Your task to perform on an android device: turn on javascript in the chrome app Image 0: 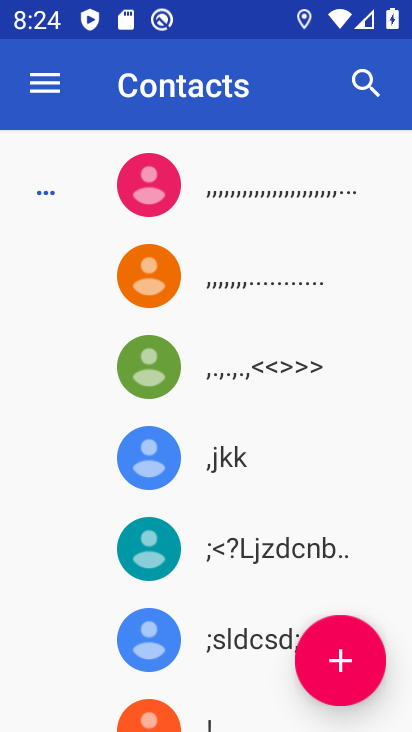
Step 0: press home button
Your task to perform on an android device: turn on javascript in the chrome app Image 1: 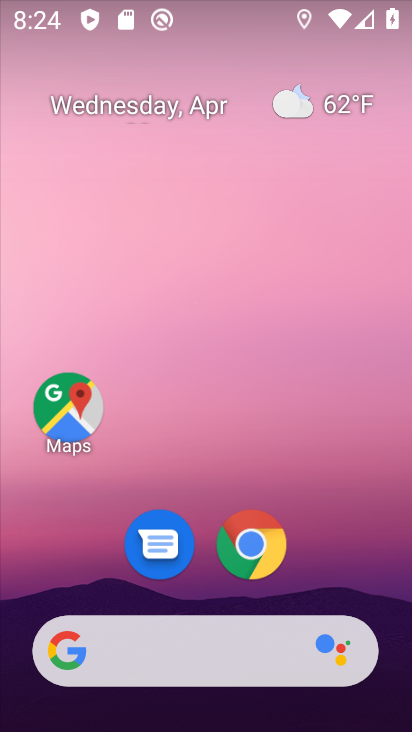
Step 1: click (254, 535)
Your task to perform on an android device: turn on javascript in the chrome app Image 2: 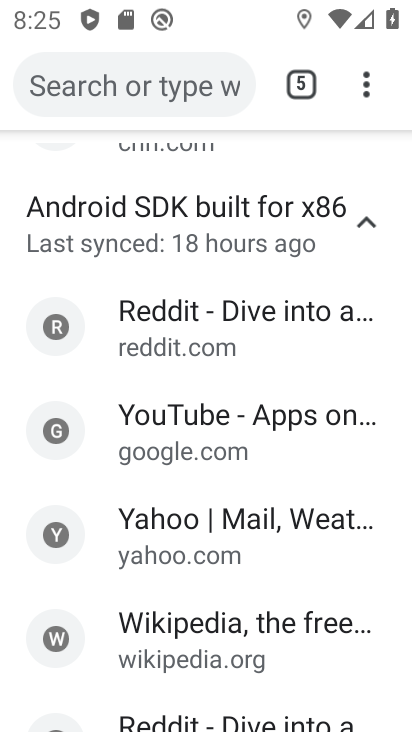
Step 2: drag from (364, 88) to (176, 586)
Your task to perform on an android device: turn on javascript in the chrome app Image 3: 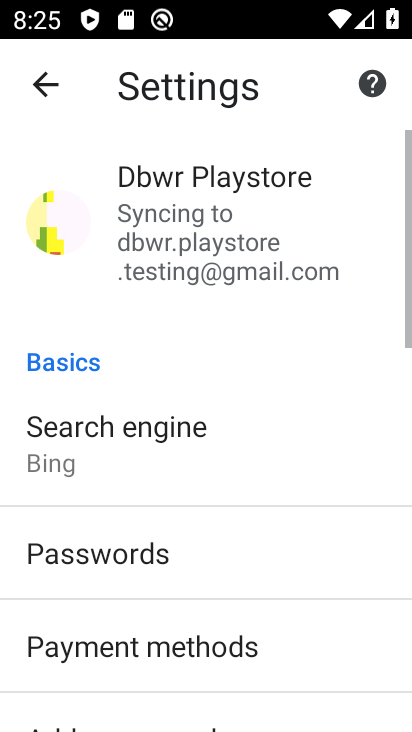
Step 3: drag from (204, 568) to (174, 147)
Your task to perform on an android device: turn on javascript in the chrome app Image 4: 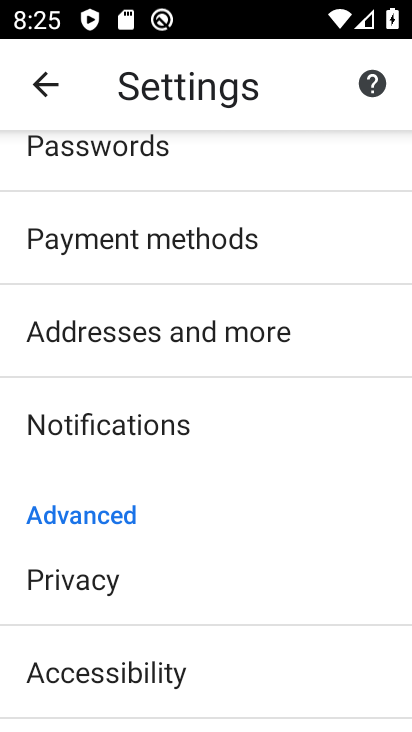
Step 4: drag from (289, 634) to (295, 376)
Your task to perform on an android device: turn on javascript in the chrome app Image 5: 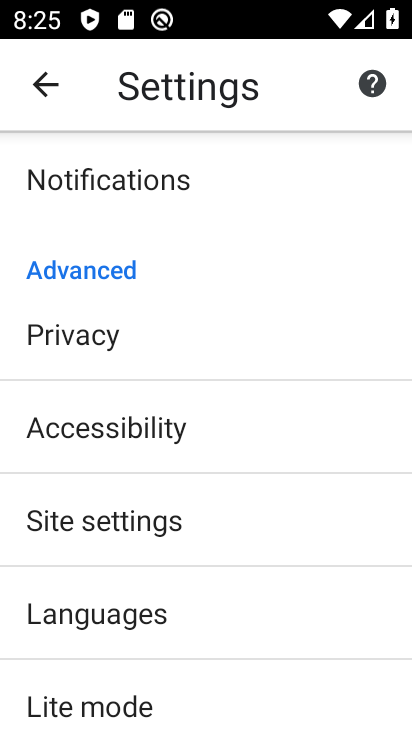
Step 5: click (117, 525)
Your task to perform on an android device: turn on javascript in the chrome app Image 6: 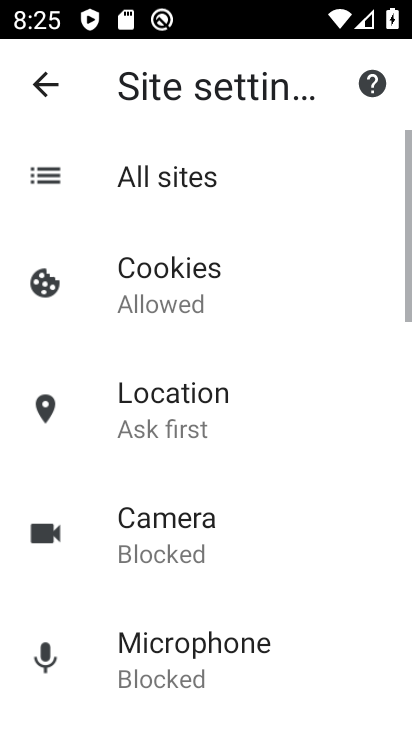
Step 6: drag from (298, 606) to (247, 239)
Your task to perform on an android device: turn on javascript in the chrome app Image 7: 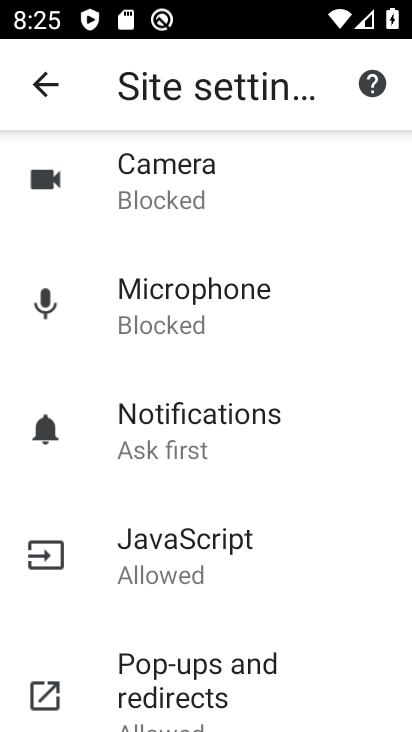
Step 7: click (170, 558)
Your task to perform on an android device: turn on javascript in the chrome app Image 8: 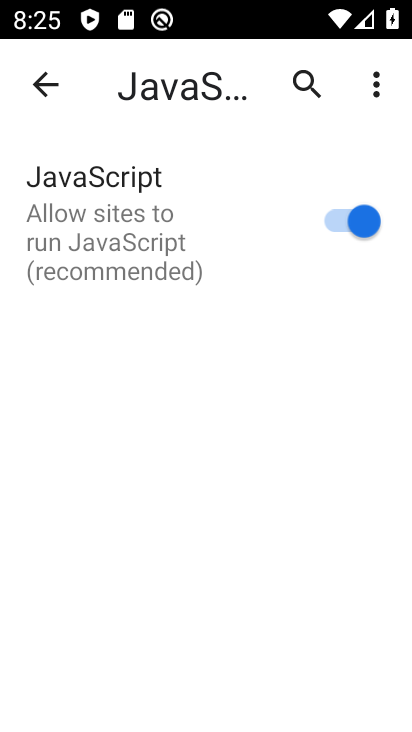
Step 8: task complete